Your task to perform on an android device: turn off improve location accuracy Image 0: 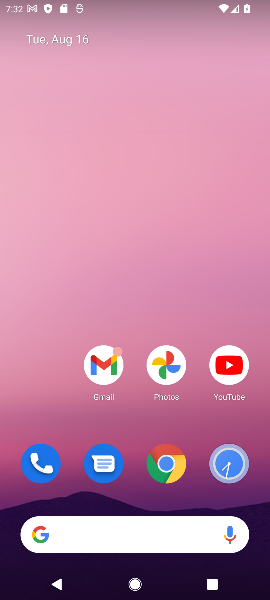
Step 0: drag from (134, 500) to (146, 112)
Your task to perform on an android device: turn off improve location accuracy Image 1: 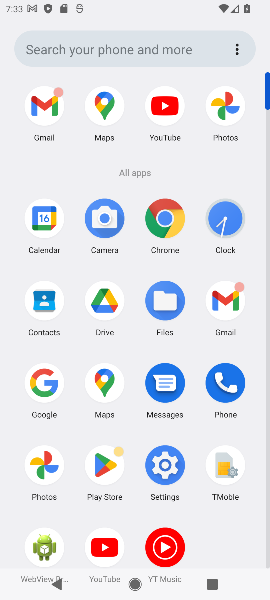
Step 1: click (160, 472)
Your task to perform on an android device: turn off improve location accuracy Image 2: 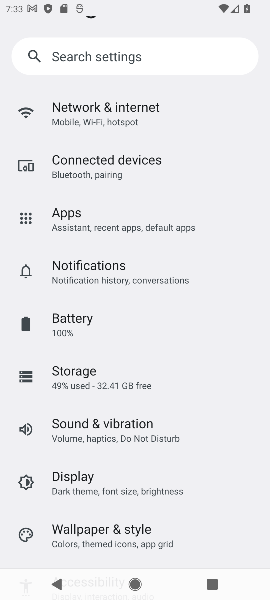
Step 2: drag from (115, 487) to (144, 197)
Your task to perform on an android device: turn off improve location accuracy Image 3: 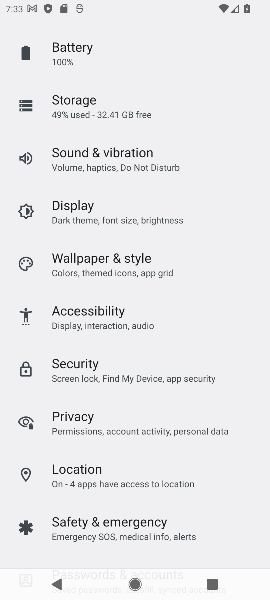
Step 3: click (102, 483)
Your task to perform on an android device: turn off improve location accuracy Image 4: 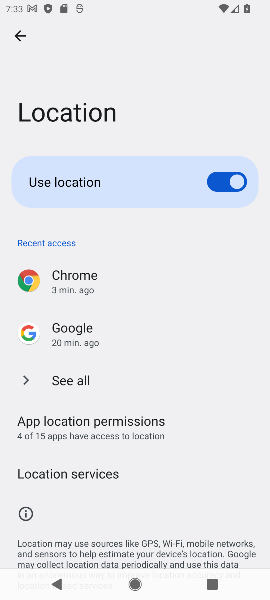
Step 4: drag from (67, 502) to (78, 424)
Your task to perform on an android device: turn off improve location accuracy Image 5: 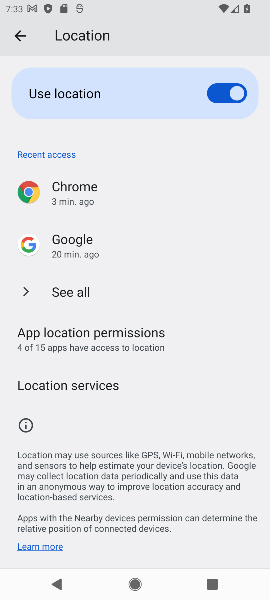
Step 5: click (74, 386)
Your task to perform on an android device: turn off improve location accuracy Image 6: 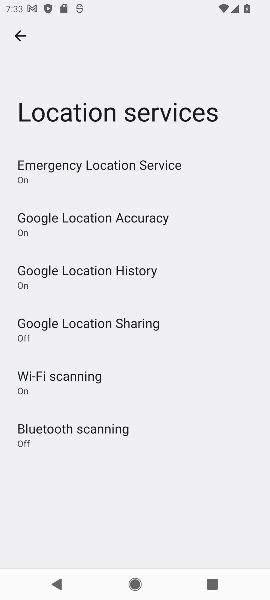
Step 6: click (116, 221)
Your task to perform on an android device: turn off improve location accuracy Image 7: 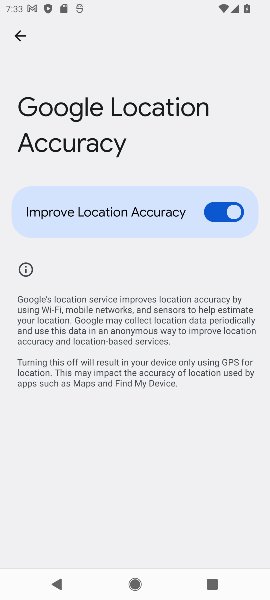
Step 7: click (205, 192)
Your task to perform on an android device: turn off improve location accuracy Image 8: 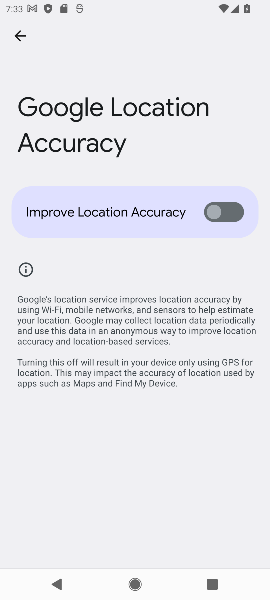
Step 8: task complete